Your task to perform on an android device: open app "Messenger Lite" (install if not already installed) and go to login screen Image 0: 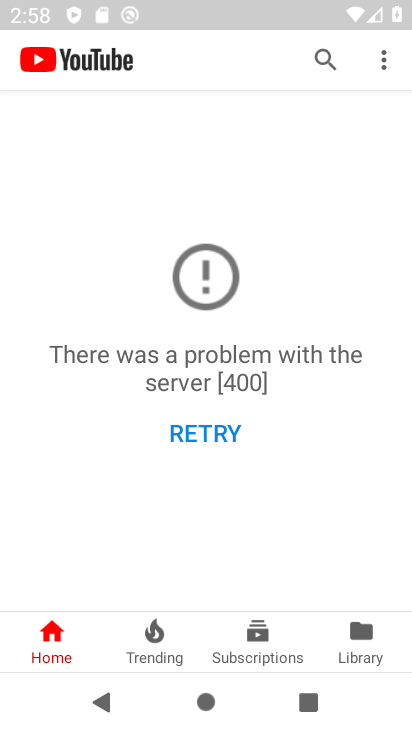
Step 0: press home button
Your task to perform on an android device: open app "Messenger Lite" (install if not already installed) and go to login screen Image 1: 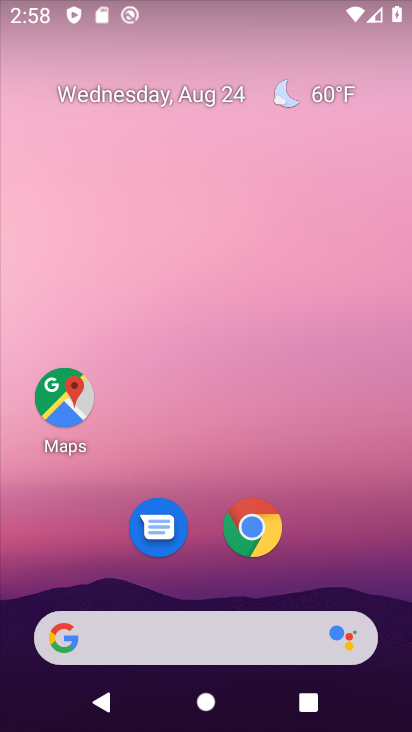
Step 1: drag from (335, 588) to (275, 0)
Your task to perform on an android device: open app "Messenger Lite" (install if not already installed) and go to login screen Image 2: 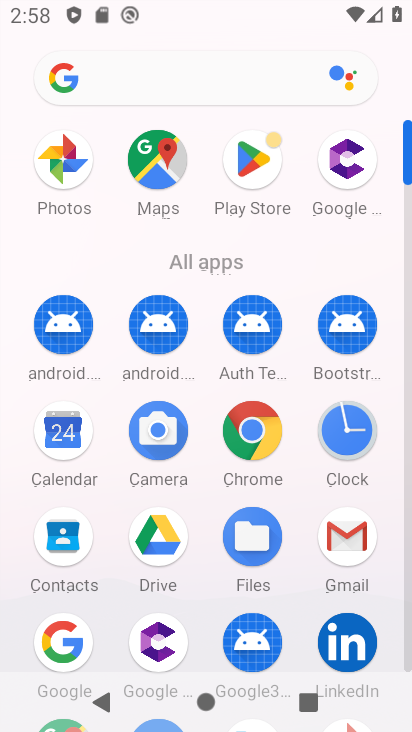
Step 2: click (243, 153)
Your task to perform on an android device: open app "Messenger Lite" (install if not already installed) and go to login screen Image 3: 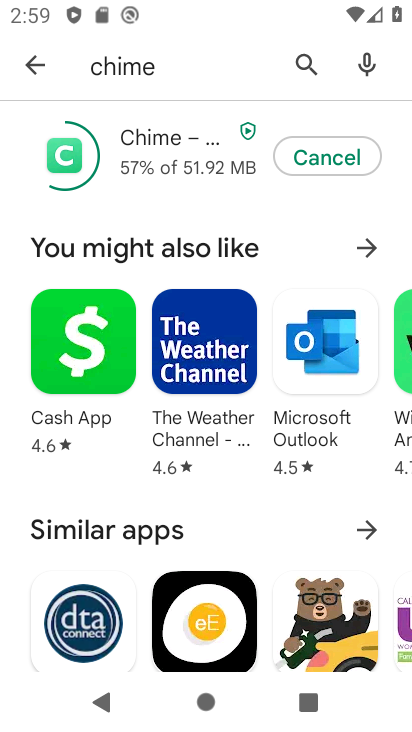
Step 3: click (323, 72)
Your task to perform on an android device: open app "Messenger Lite" (install if not already installed) and go to login screen Image 4: 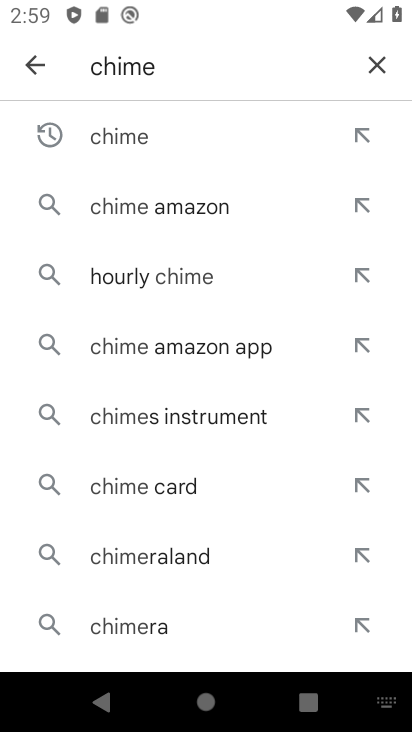
Step 4: click (373, 65)
Your task to perform on an android device: open app "Messenger Lite" (install if not already installed) and go to login screen Image 5: 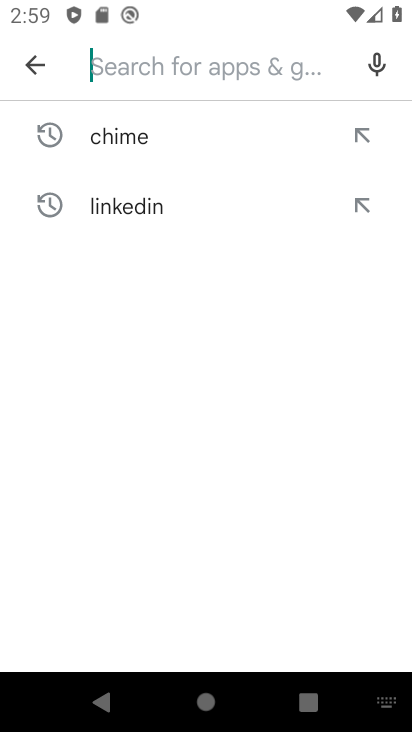
Step 5: type "messenger"
Your task to perform on an android device: open app "Messenger Lite" (install if not already installed) and go to login screen Image 6: 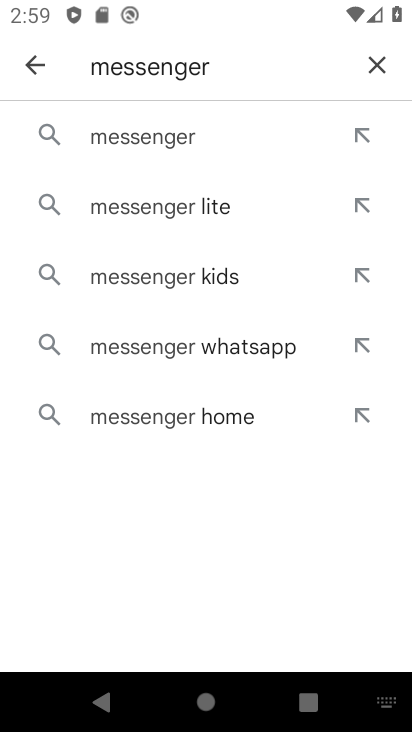
Step 6: click (199, 197)
Your task to perform on an android device: open app "Messenger Lite" (install if not already installed) and go to login screen Image 7: 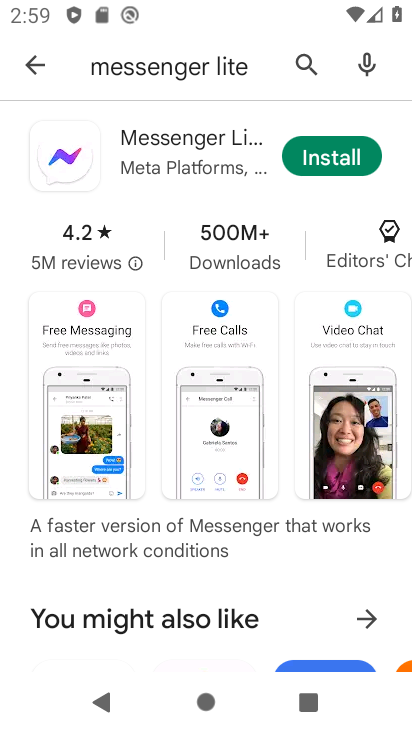
Step 7: click (341, 128)
Your task to perform on an android device: open app "Messenger Lite" (install if not already installed) and go to login screen Image 8: 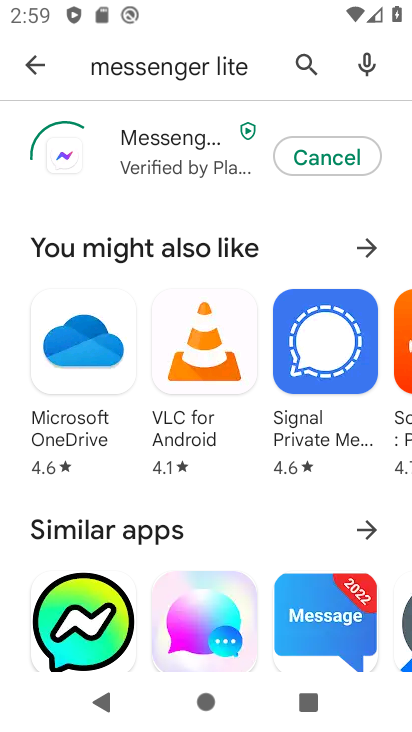
Step 8: task complete